Your task to perform on an android device: Show me productivity apps on the Play Store Image 0: 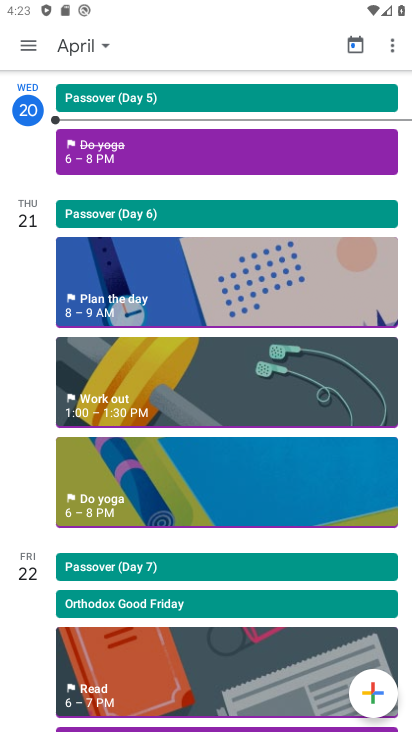
Step 0: press home button
Your task to perform on an android device: Show me productivity apps on the Play Store Image 1: 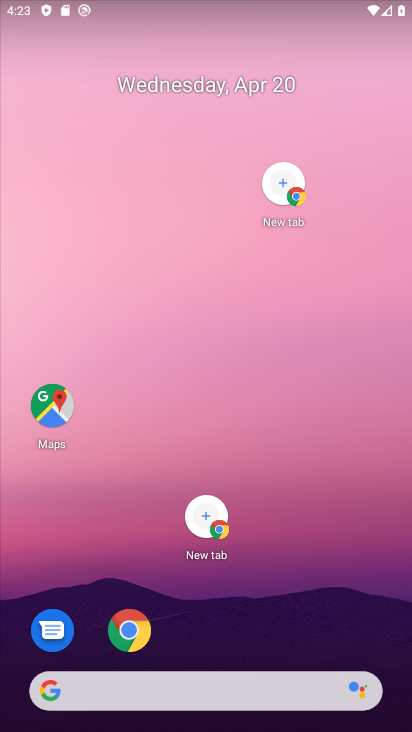
Step 1: drag from (281, 666) to (120, 123)
Your task to perform on an android device: Show me productivity apps on the Play Store Image 2: 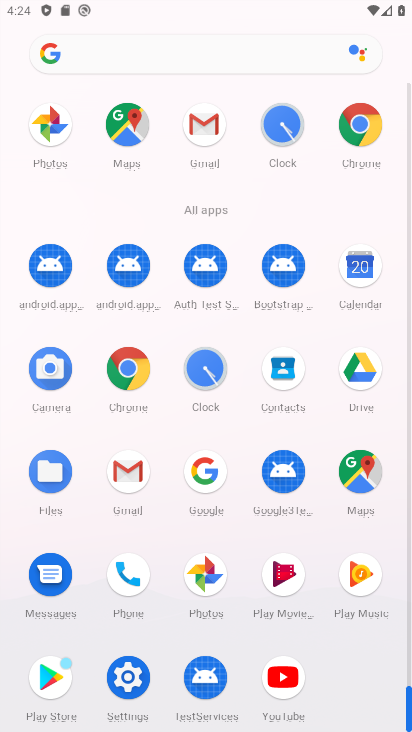
Step 2: click (40, 681)
Your task to perform on an android device: Show me productivity apps on the Play Store Image 3: 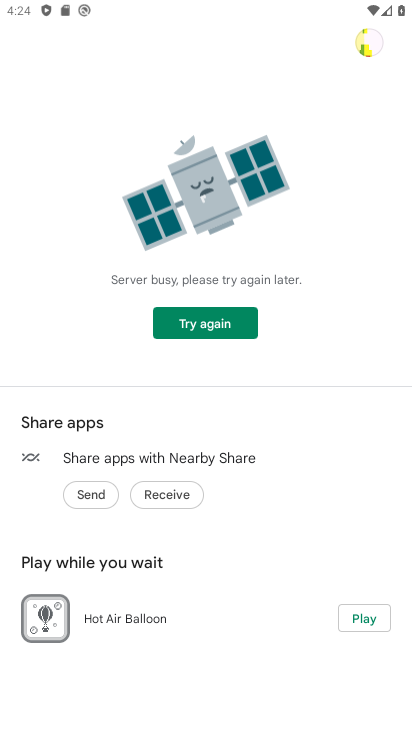
Step 3: task complete